Your task to perform on an android device: Clear the cart on bestbuy. Add "usb-c to usb-b" to the cart on bestbuy, then select checkout. Image 0: 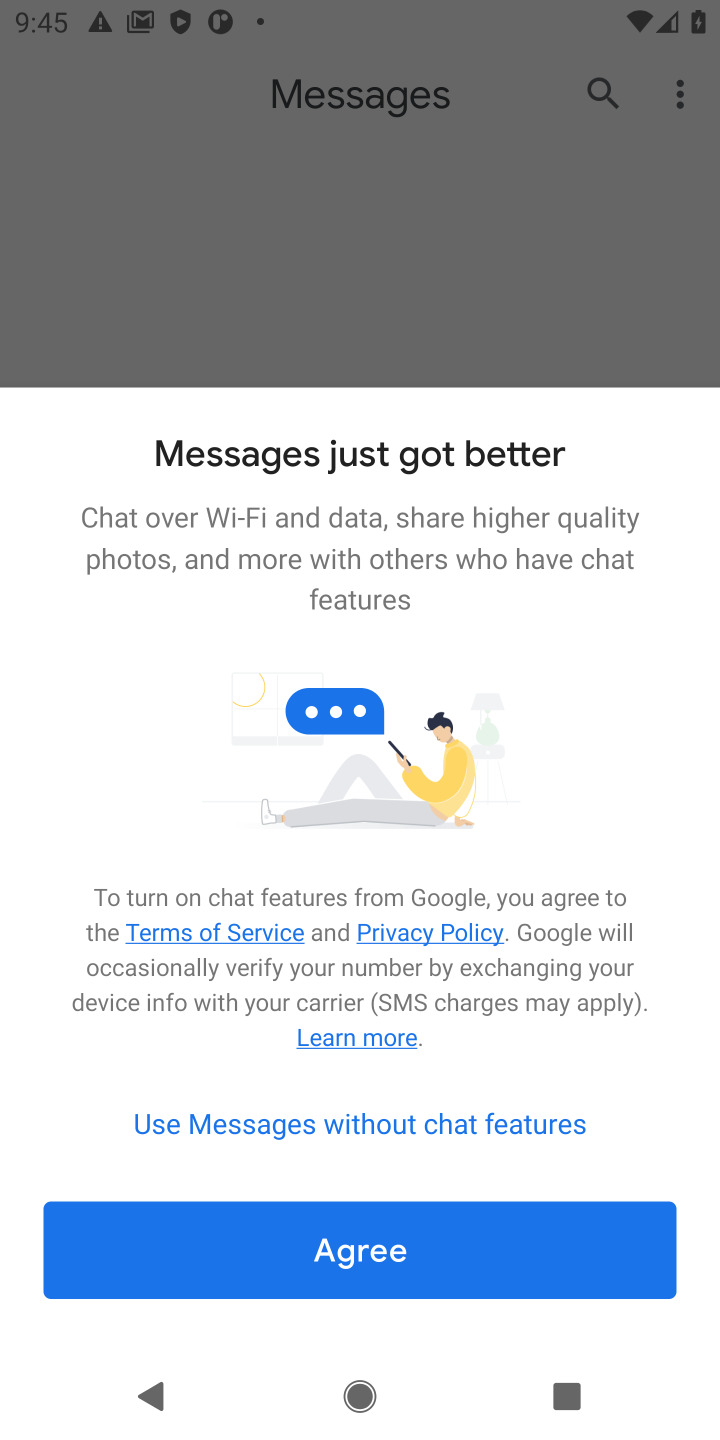
Step 0: press home button
Your task to perform on an android device: Clear the cart on bestbuy. Add "usb-c to usb-b" to the cart on bestbuy, then select checkout. Image 1: 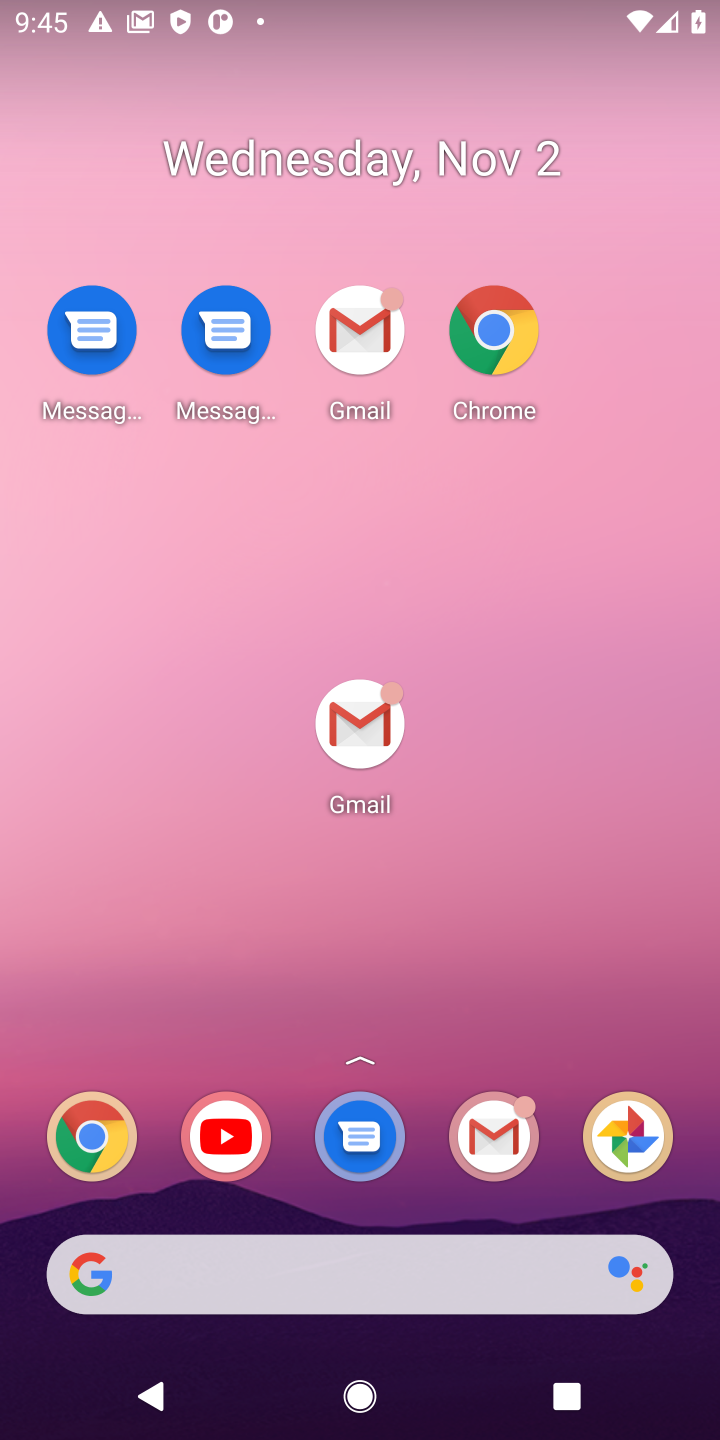
Step 1: drag from (284, 1303) to (331, 654)
Your task to perform on an android device: Clear the cart on bestbuy. Add "usb-c to usb-b" to the cart on bestbuy, then select checkout. Image 2: 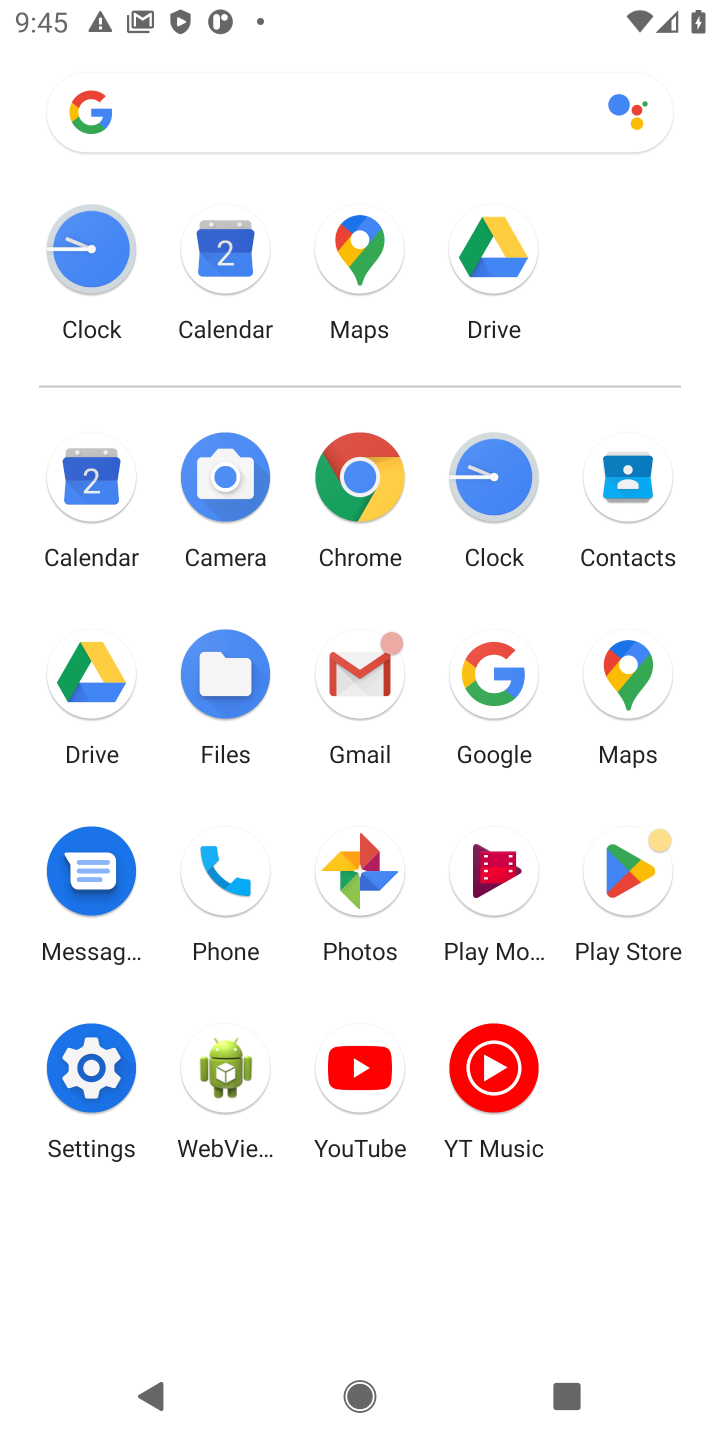
Step 2: click (480, 662)
Your task to perform on an android device: Clear the cart on bestbuy. Add "usb-c to usb-b" to the cart on bestbuy, then select checkout. Image 3: 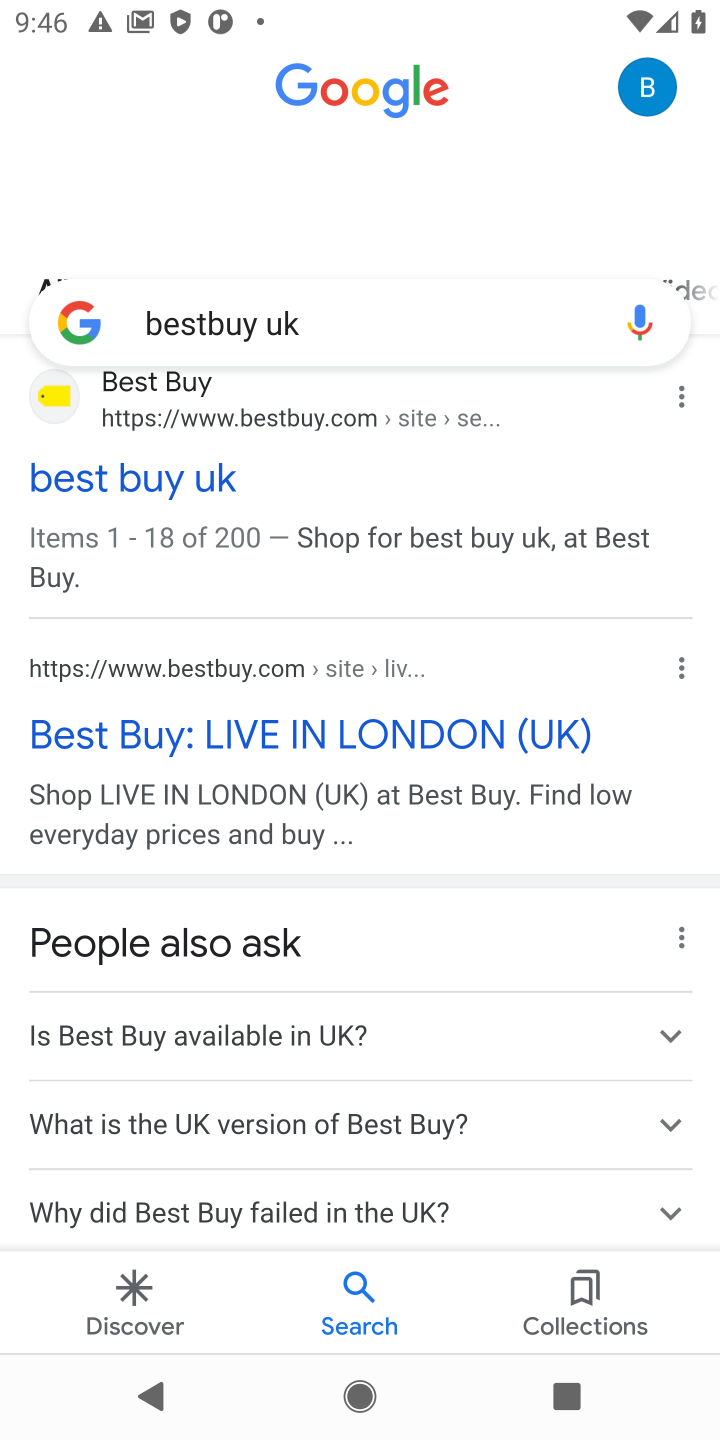
Step 3: click (46, 392)
Your task to perform on an android device: Clear the cart on bestbuy. Add "usb-c to usb-b" to the cart on bestbuy, then select checkout. Image 4: 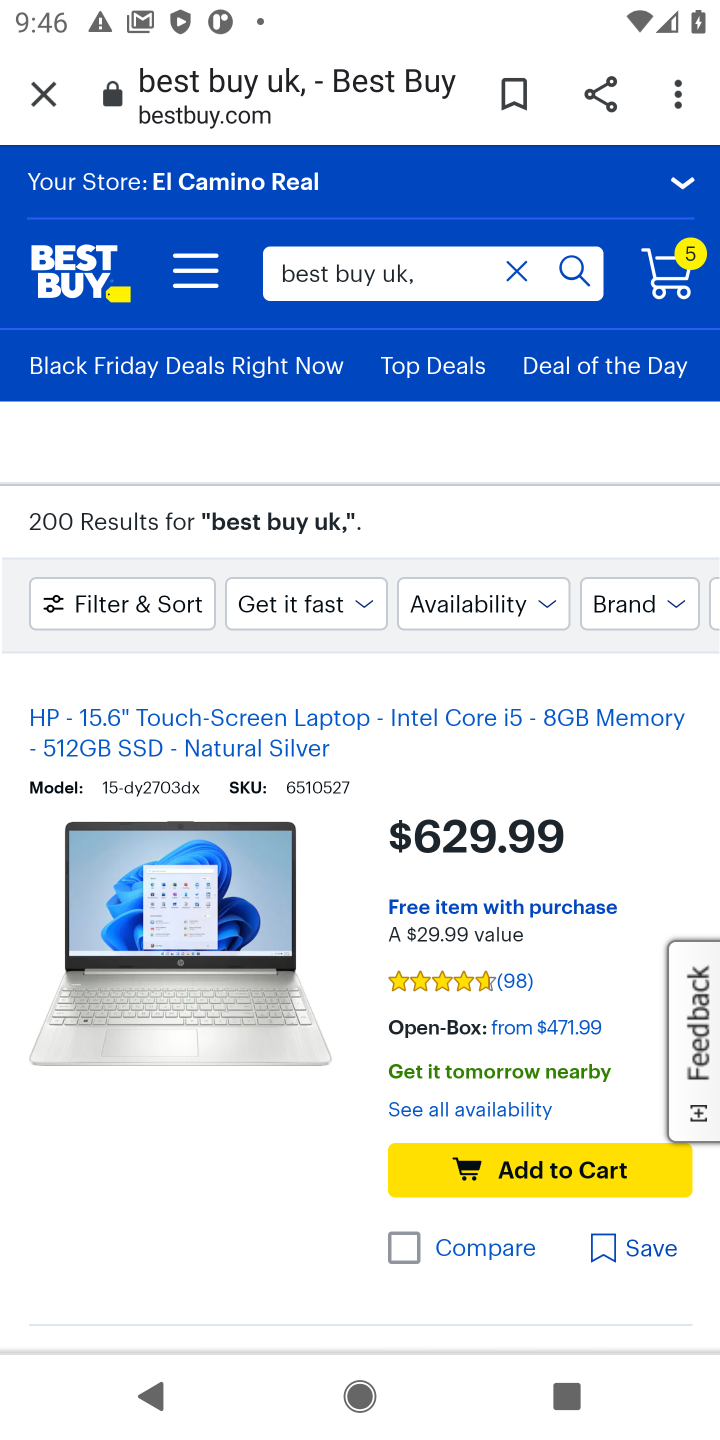
Step 4: click (514, 269)
Your task to perform on an android device: Clear the cart on bestbuy. Add "usb-c to usb-b" to the cart on bestbuy, then select checkout. Image 5: 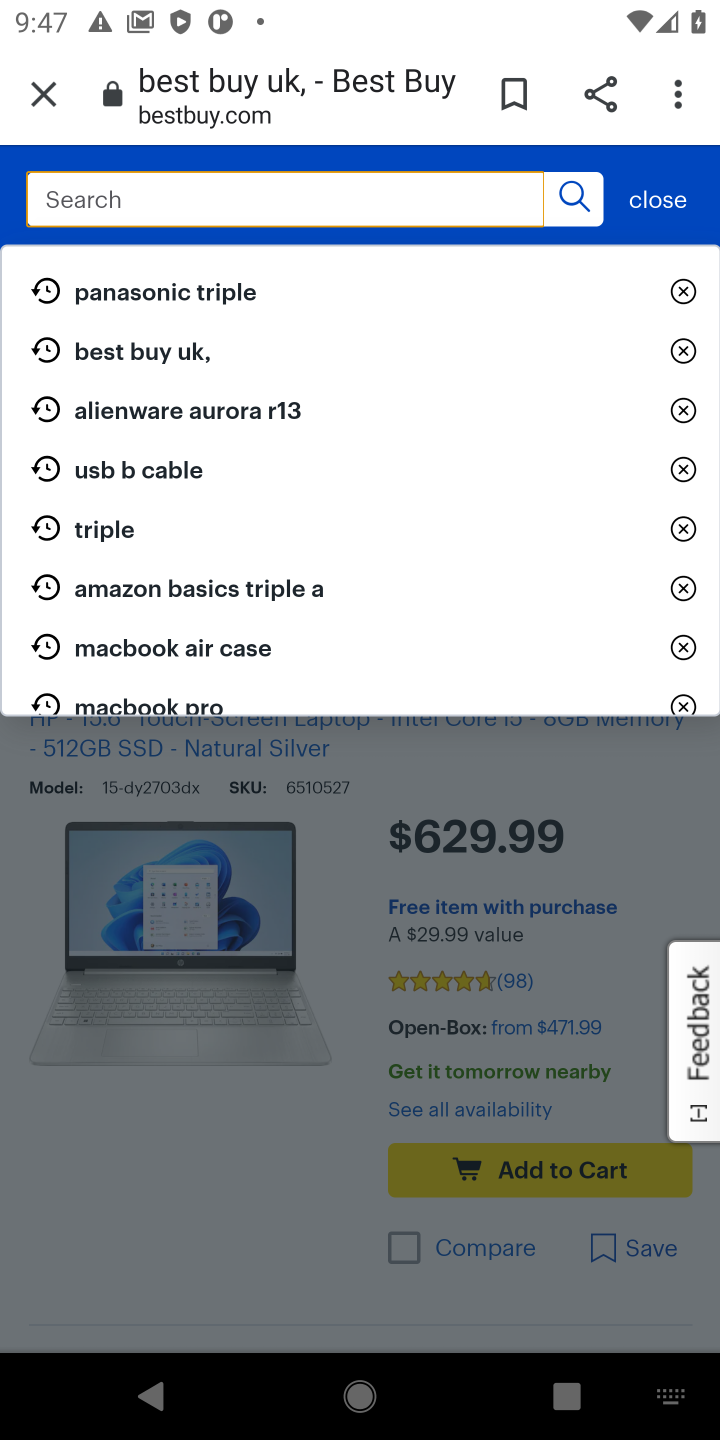
Step 5: click (271, 189)
Your task to perform on an android device: Clear the cart on bestbuy. Add "usb-c to usb-b" to the cart on bestbuy, then select checkout. Image 6: 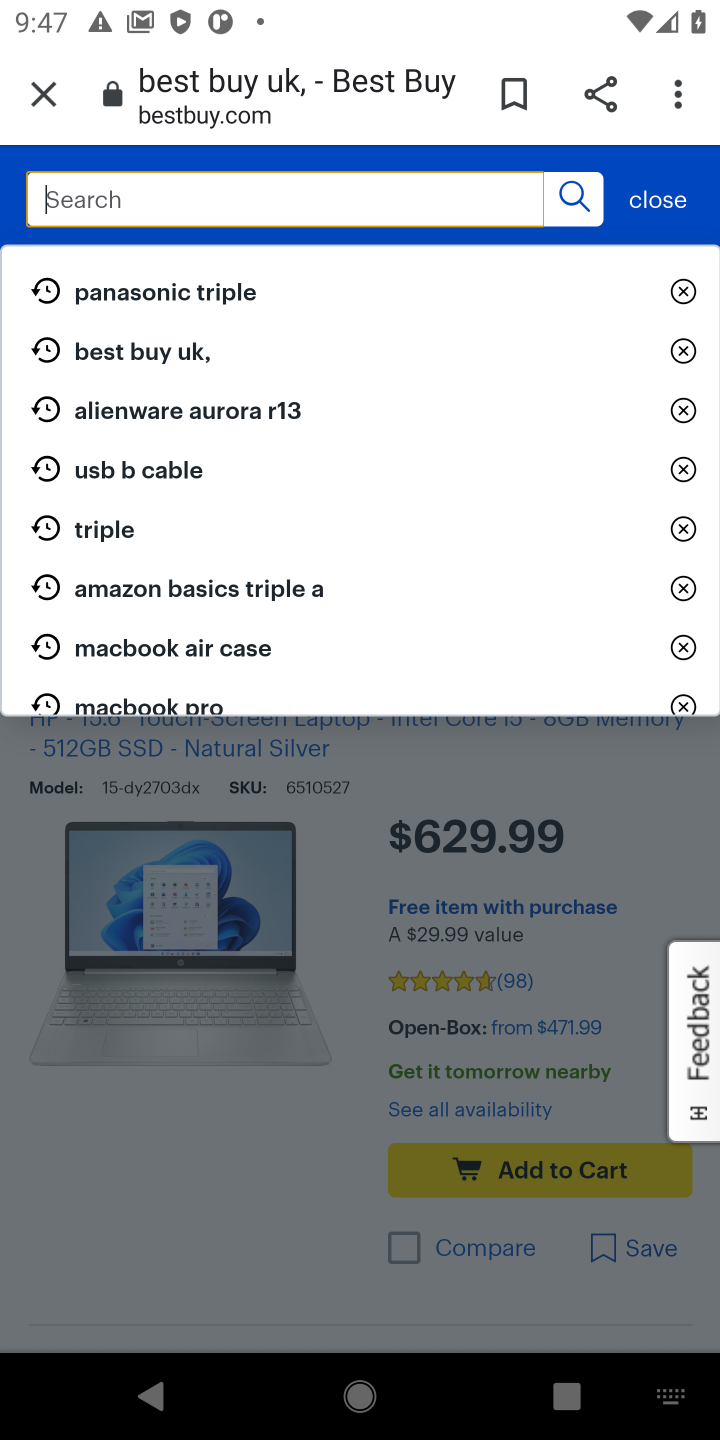
Step 6: type "usb-c to usb-b "
Your task to perform on an android device: Clear the cart on bestbuy. Add "usb-c to usb-b" to the cart on bestbuy, then select checkout. Image 7: 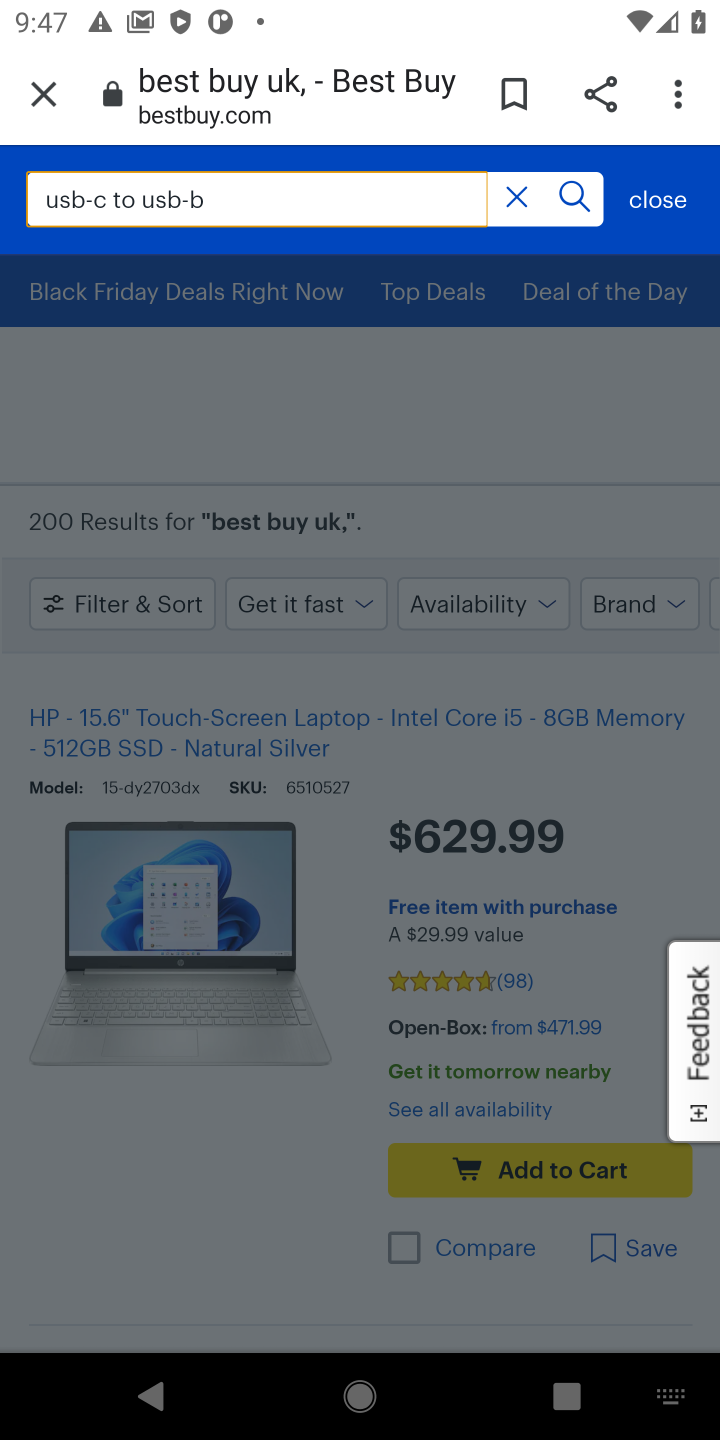
Step 7: click (562, 195)
Your task to perform on an android device: Clear the cart on bestbuy. Add "usb-c to usb-b" to the cart on bestbuy, then select checkout. Image 8: 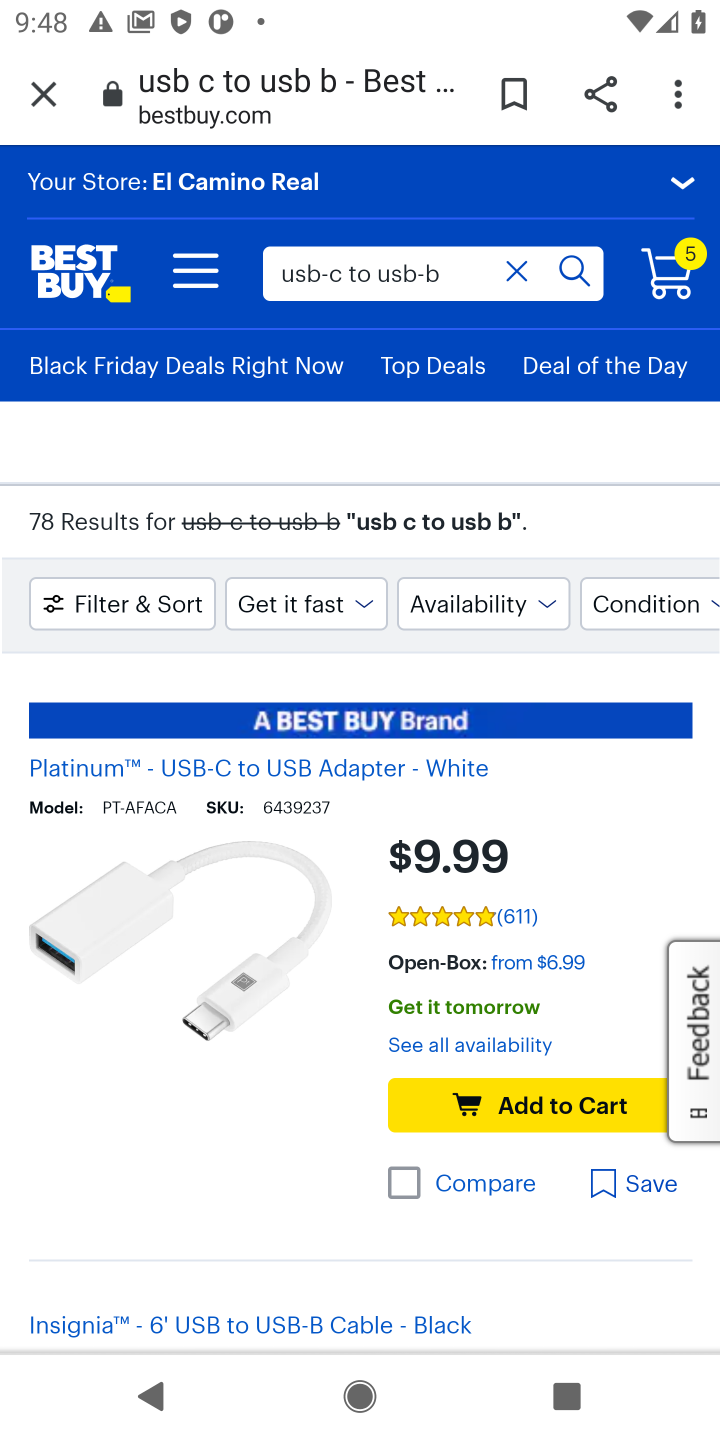
Step 8: click (504, 1109)
Your task to perform on an android device: Clear the cart on bestbuy. Add "usb-c to usb-b" to the cart on bestbuy, then select checkout. Image 9: 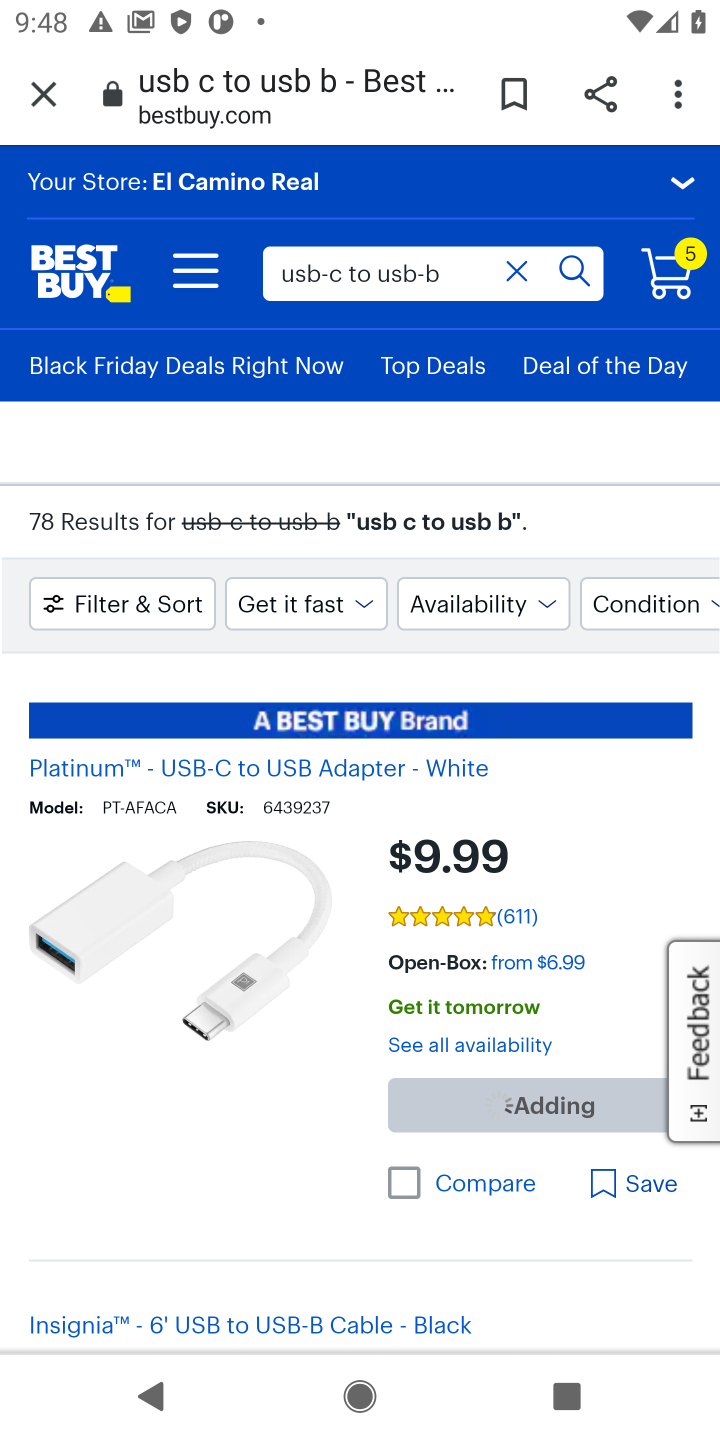
Step 9: task complete